Your task to perform on an android device: Find coffee shops on Maps Image 0: 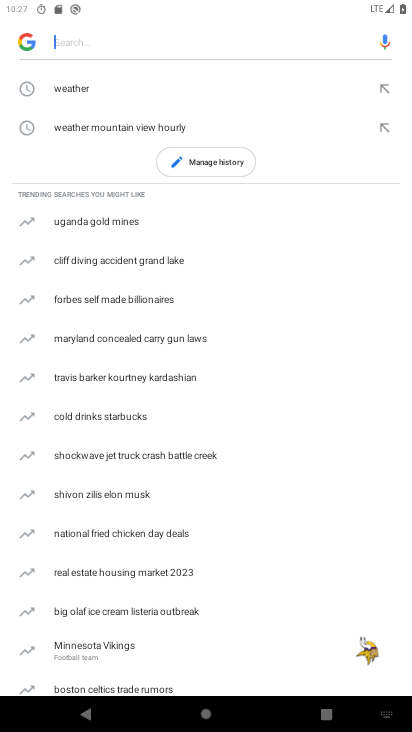
Step 0: press home button
Your task to perform on an android device: Find coffee shops on Maps Image 1: 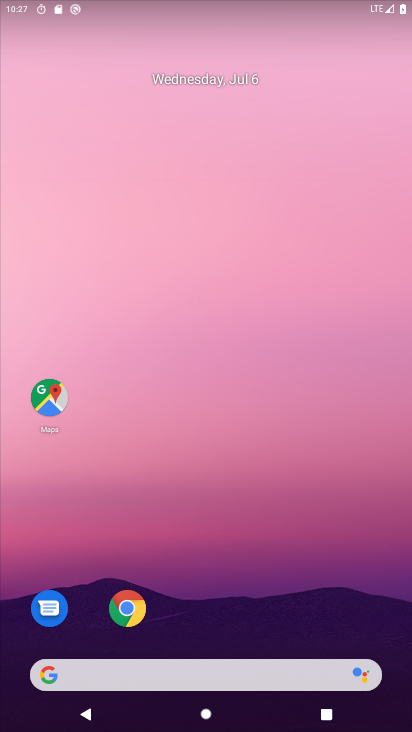
Step 1: drag from (220, 449) to (255, 6)
Your task to perform on an android device: Find coffee shops on Maps Image 2: 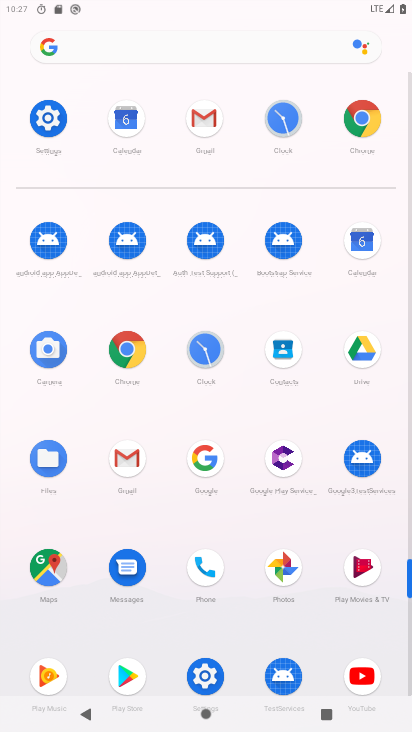
Step 2: click (58, 568)
Your task to perform on an android device: Find coffee shops on Maps Image 3: 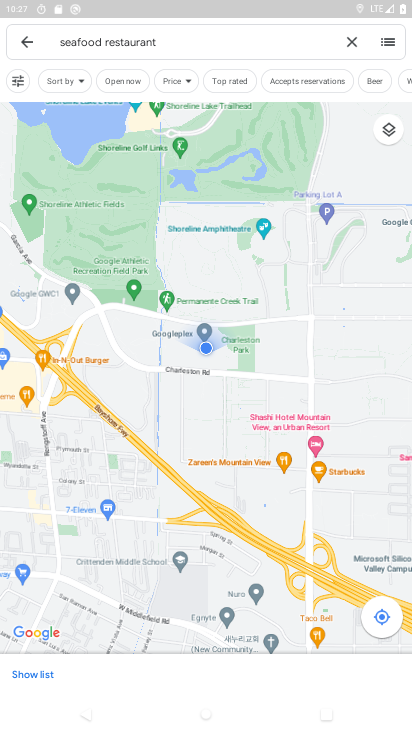
Step 3: click (353, 34)
Your task to perform on an android device: Find coffee shops on Maps Image 4: 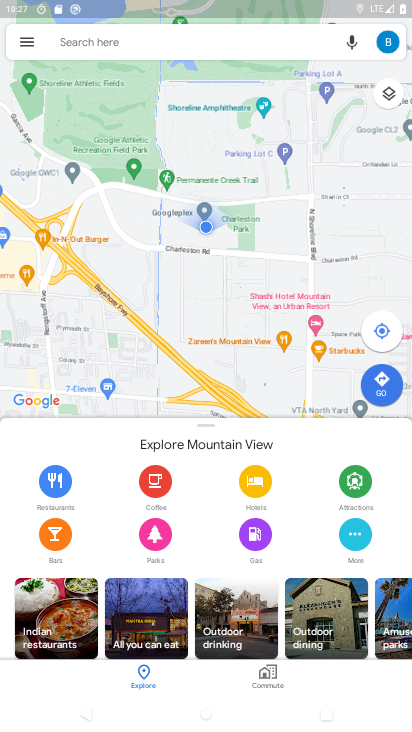
Step 4: click (233, 48)
Your task to perform on an android device: Find coffee shops on Maps Image 5: 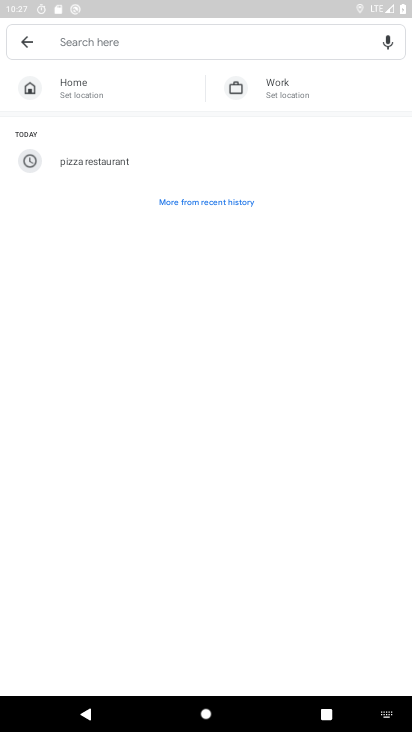
Step 5: type "coffee shops"
Your task to perform on an android device: Find coffee shops on Maps Image 6: 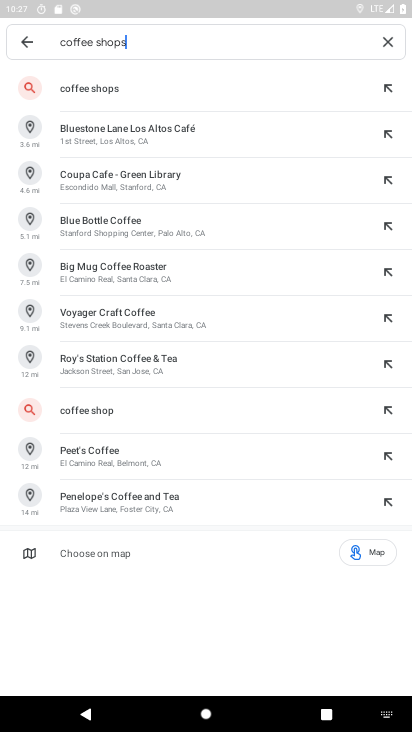
Step 6: click (117, 76)
Your task to perform on an android device: Find coffee shops on Maps Image 7: 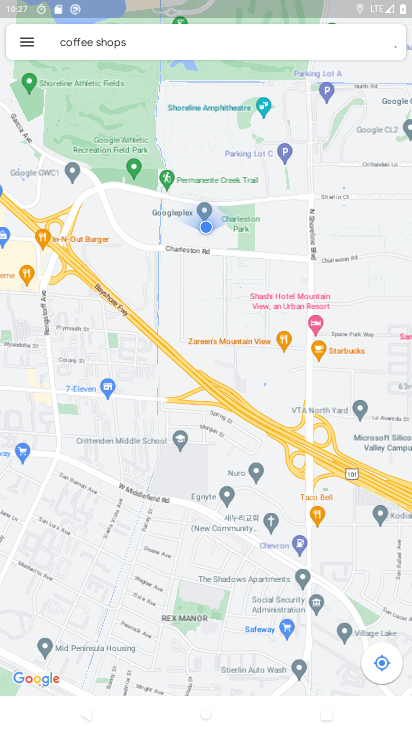
Step 7: task complete